Your task to perform on an android device: open app "LiveIn - Share Your Moment" Image 0: 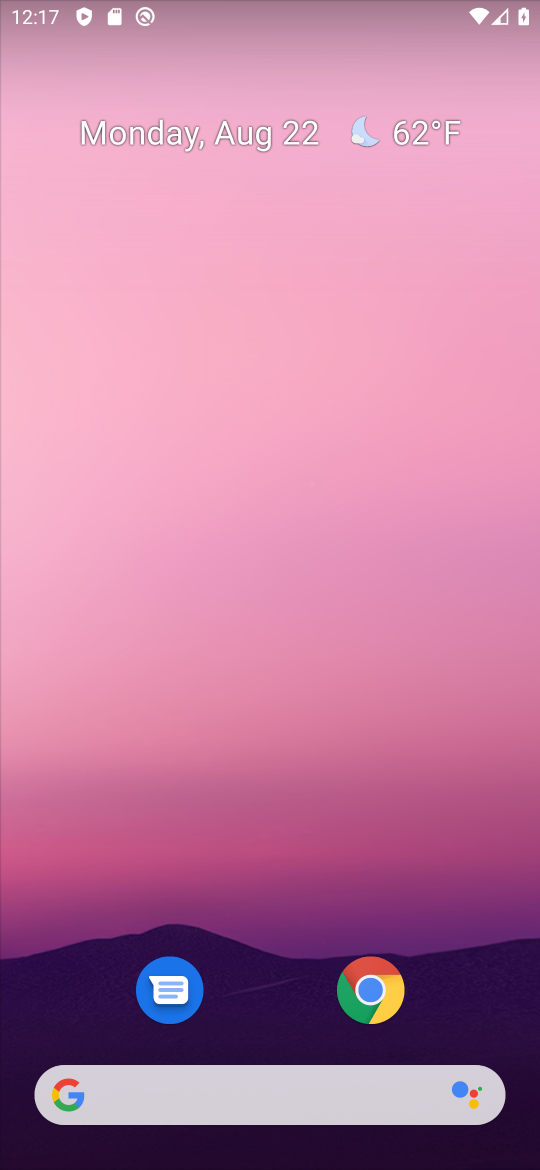
Step 0: drag from (290, 935) to (296, 178)
Your task to perform on an android device: open app "LiveIn - Share Your Moment" Image 1: 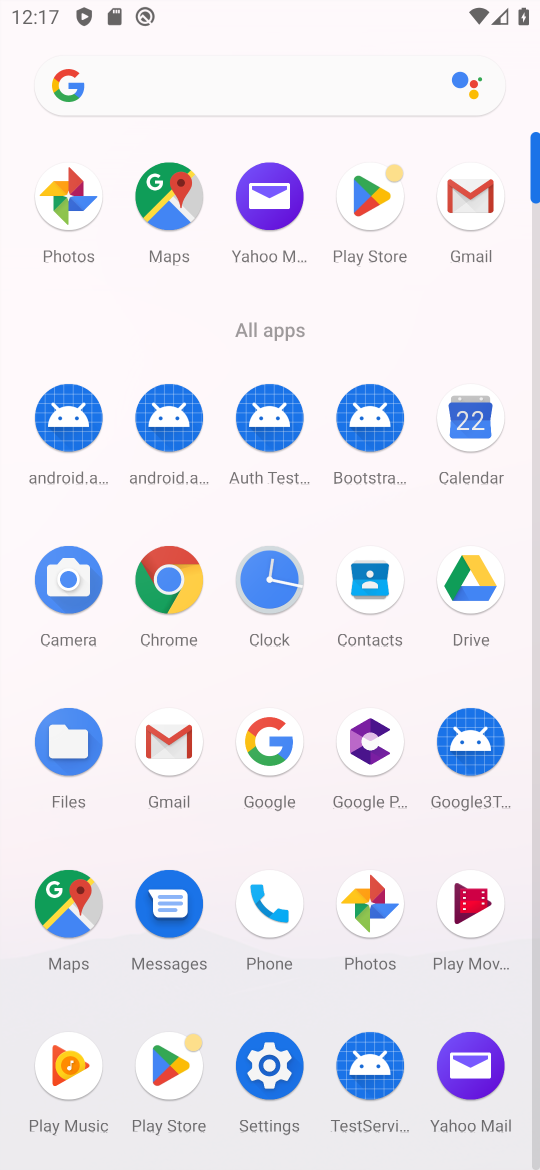
Step 1: click (359, 175)
Your task to perform on an android device: open app "LiveIn - Share Your Moment" Image 2: 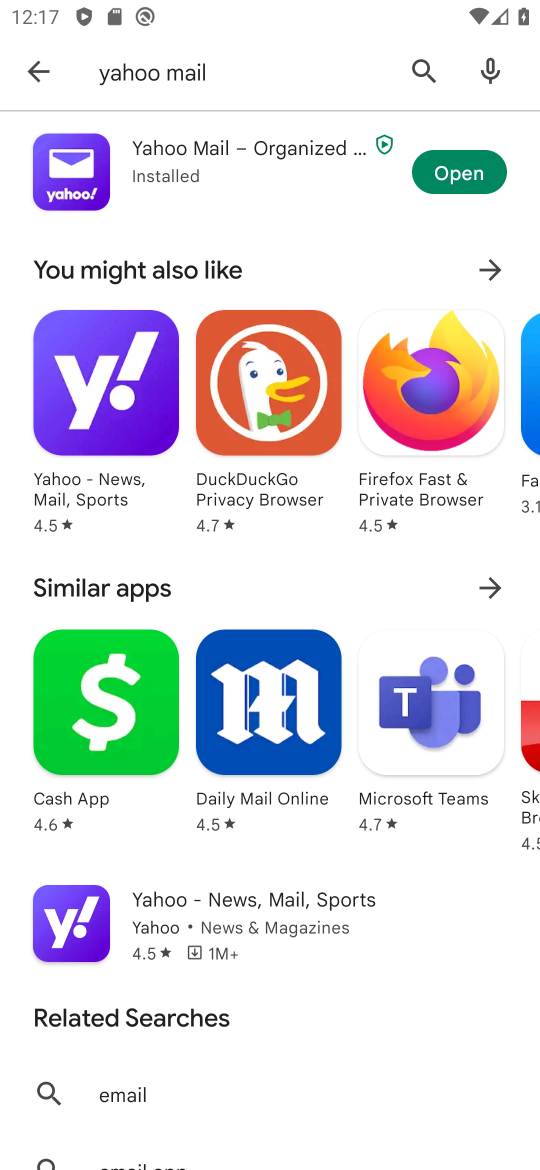
Step 2: click (411, 73)
Your task to perform on an android device: open app "LiveIn - Share Your Moment" Image 3: 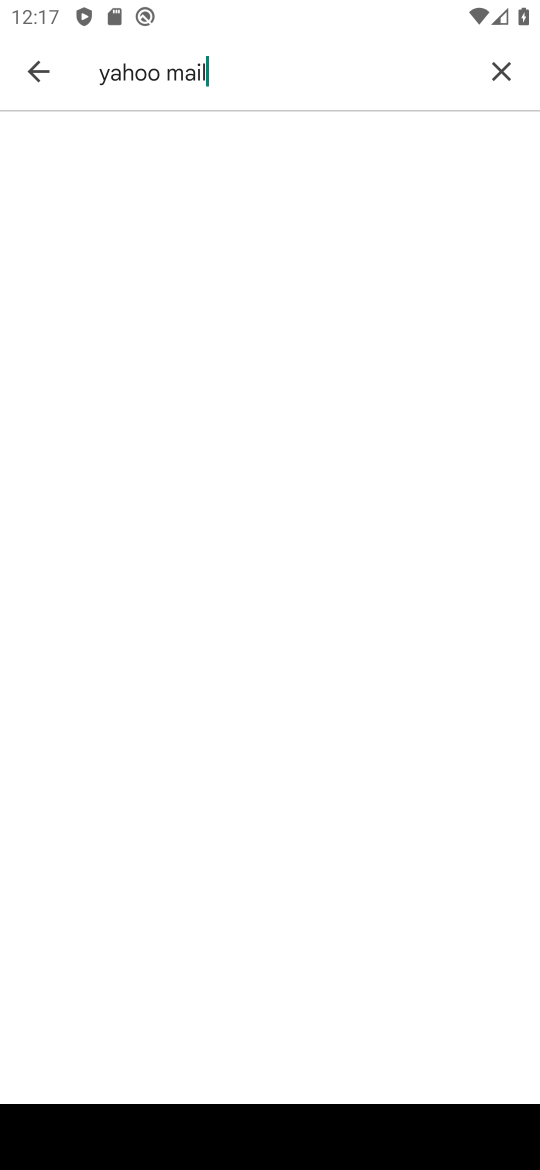
Step 3: click (491, 60)
Your task to perform on an android device: open app "LiveIn - Share Your Moment" Image 4: 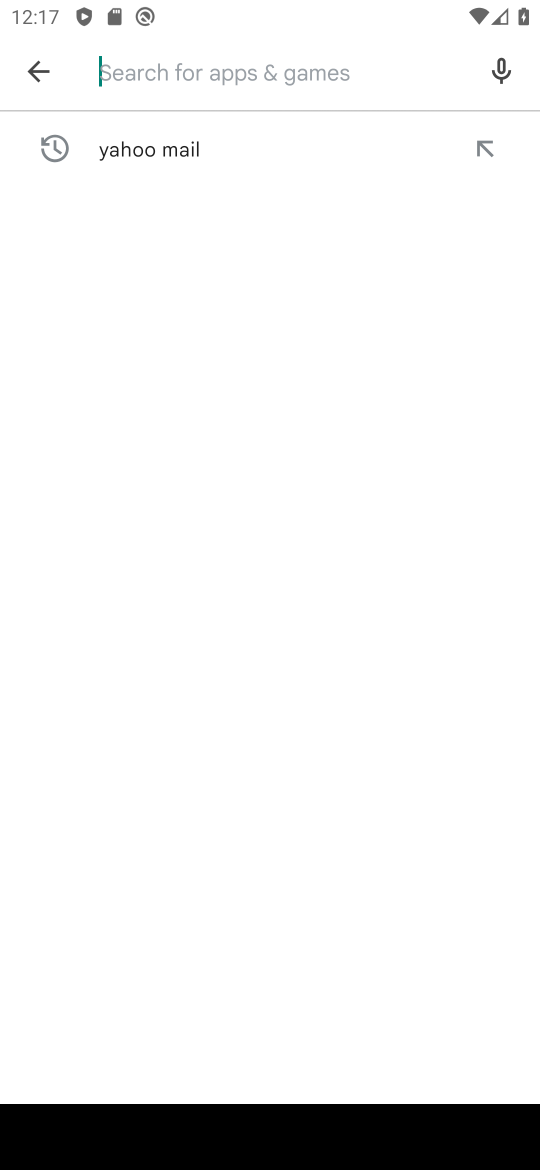
Step 4: type "LiveIn - Share Your Moment"
Your task to perform on an android device: open app "LiveIn - Share Your Moment" Image 5: 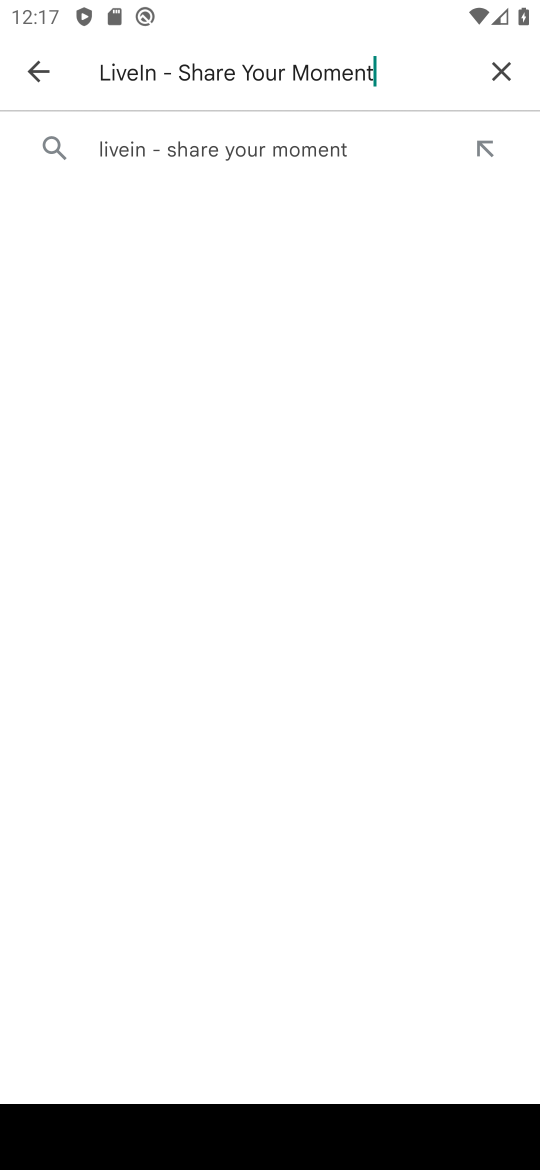
Step 5: type ""
Your task to perform on an android device: open app "LiveIn - Share Your Moment" Image 6: 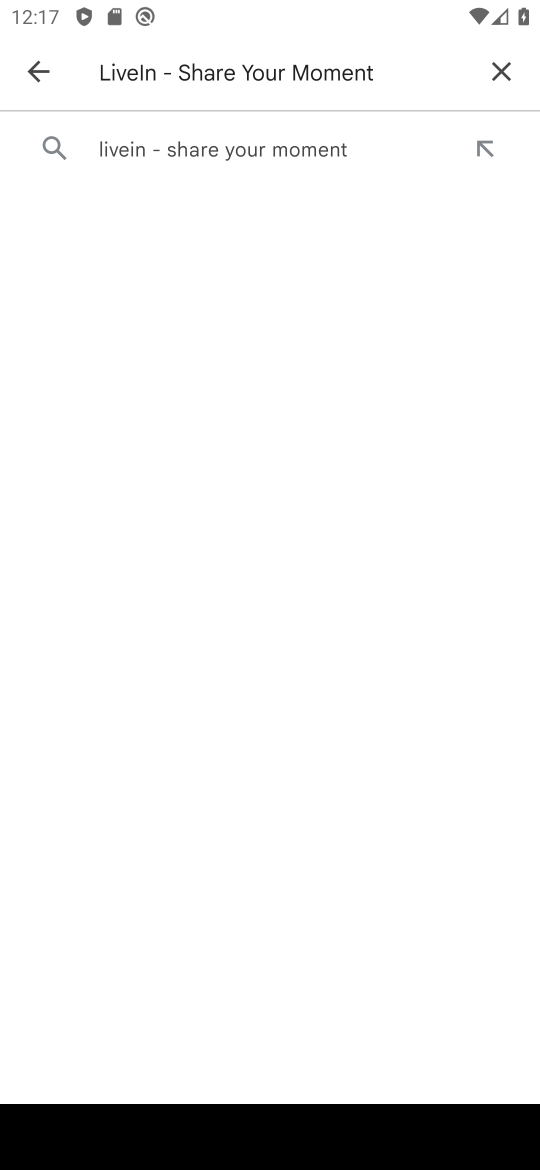
Step 6: click (356, 147)
Your task to perform on an android device: open app "LiveIn - Share Your Moment" Image 7: 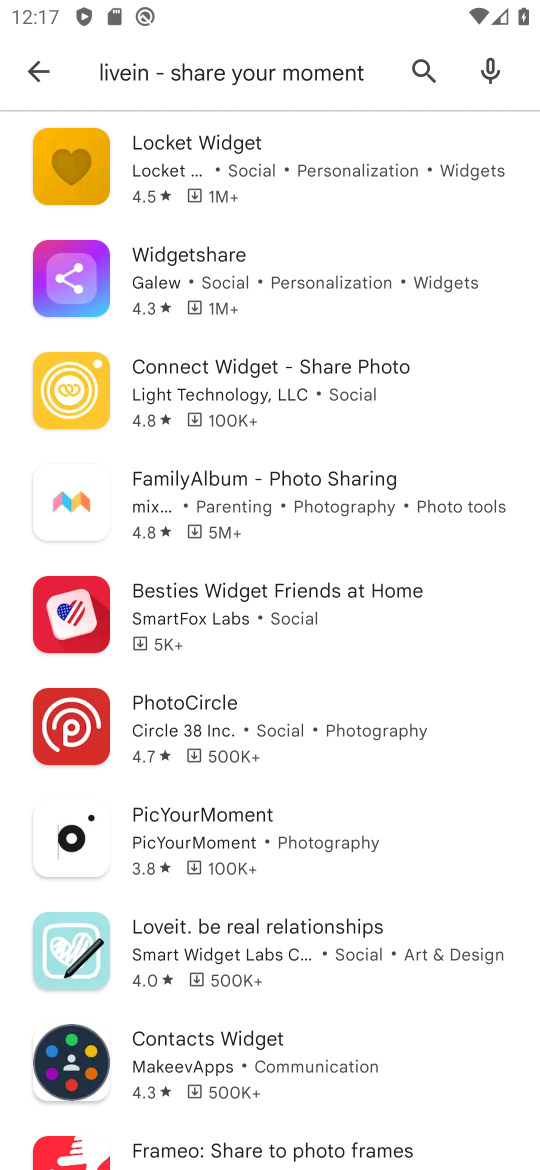
Step 7: task complete